Your task to perform on an android device: Go to Android settings Image 0: 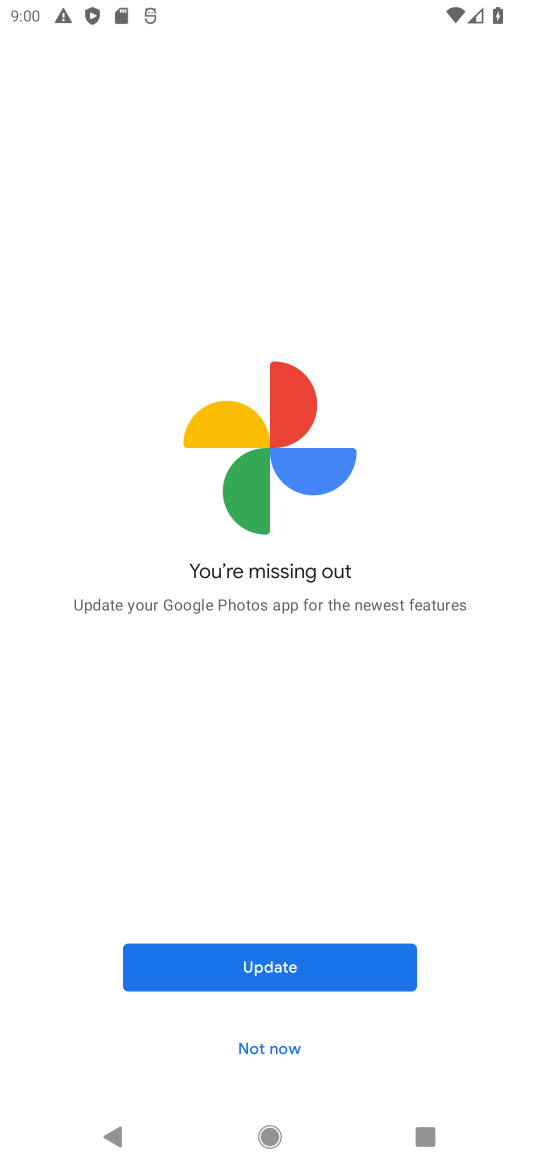
Step 0: press home button
Your task to perform on an android device: Go to Android settings Image 1: 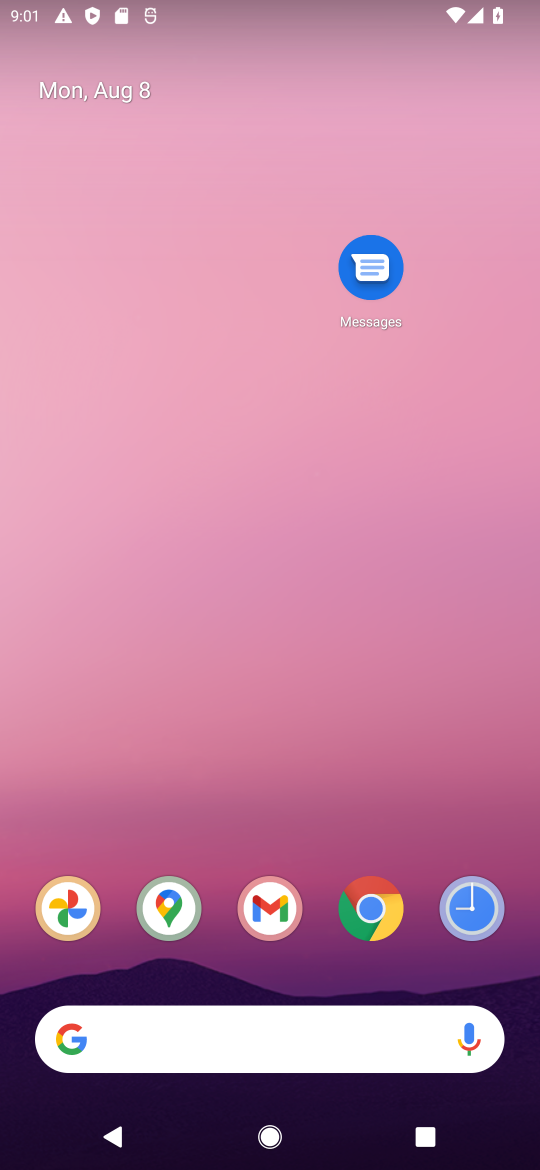
Step 1: drag from (218, 940) to (261, 444)
Your task to perform on an android device: Go to Android settings Image 2: 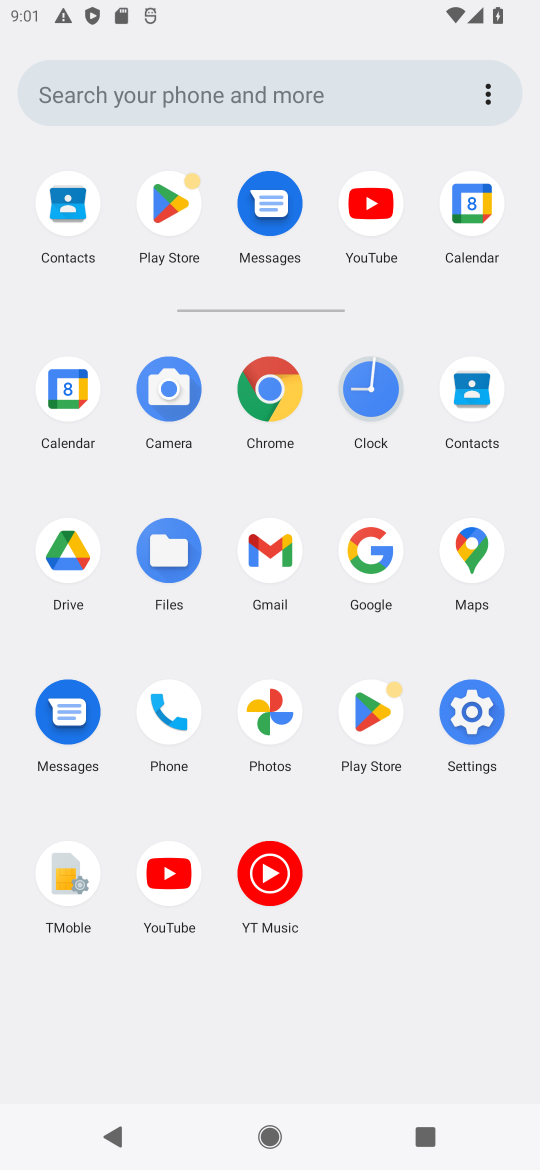
Step 2: click (497, 726)
Your task to perform on an android device: Go to Android settings Image 3: 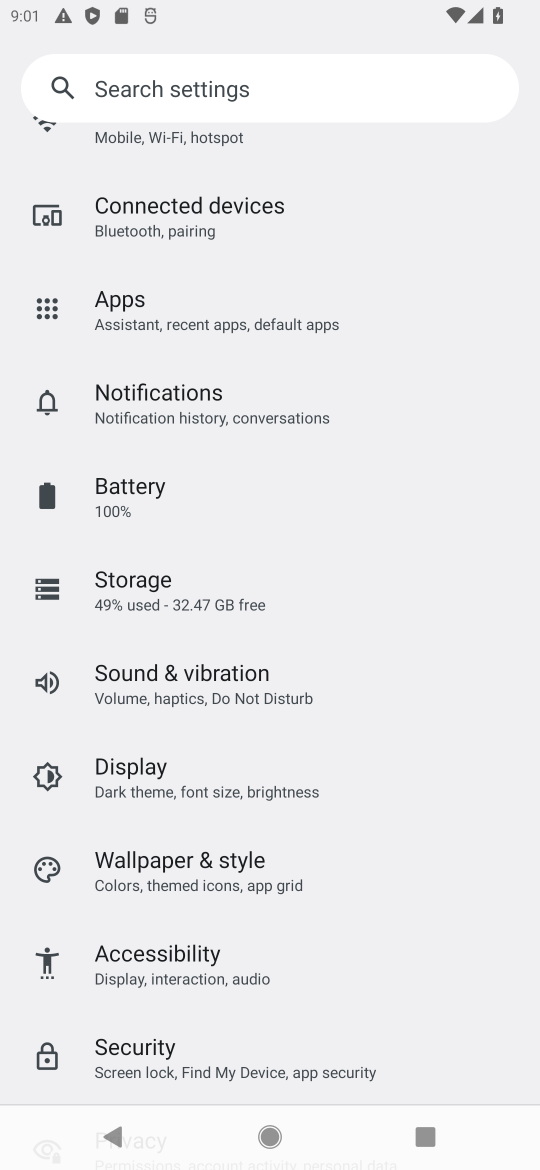
Step 3: task complete